Your task to perform on an android device: What's the weather today? Image 0: 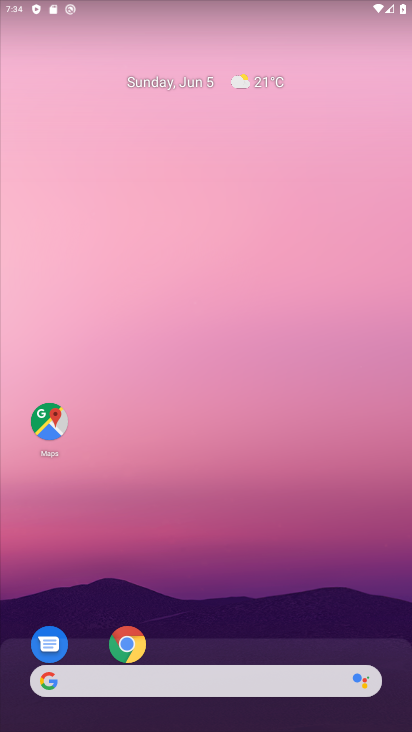
Step 0: click (128, 699)
Your task to perform on an android device: What's the weather today? Image 1: 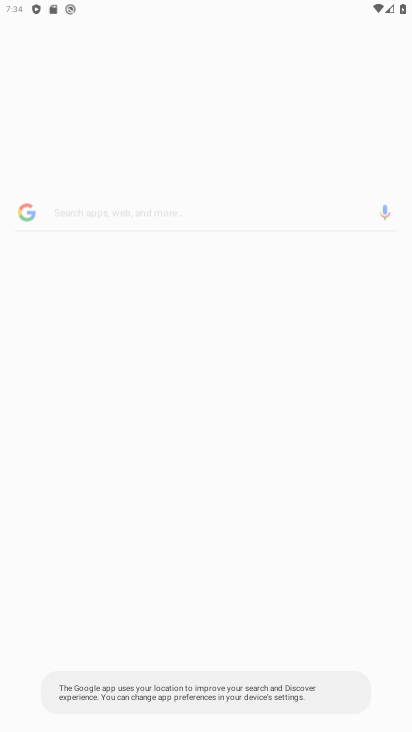
Step 1: click (128, 696)
Your task to perform on an android device: What's the weather today? Image 2: 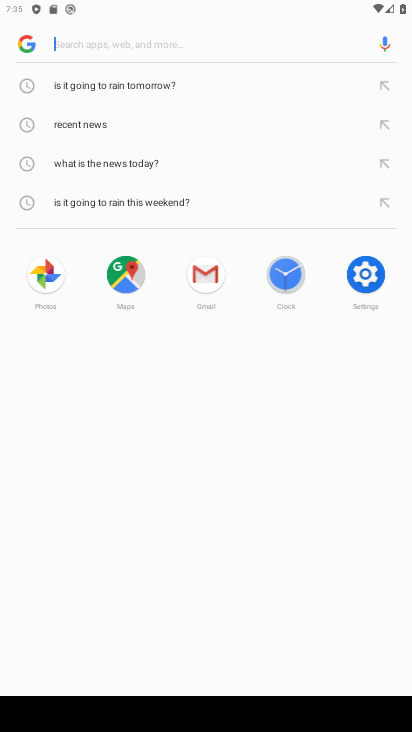
Step 2: click (192, 32)
Your task to perform on an android device: What's the weather today? Image 3: 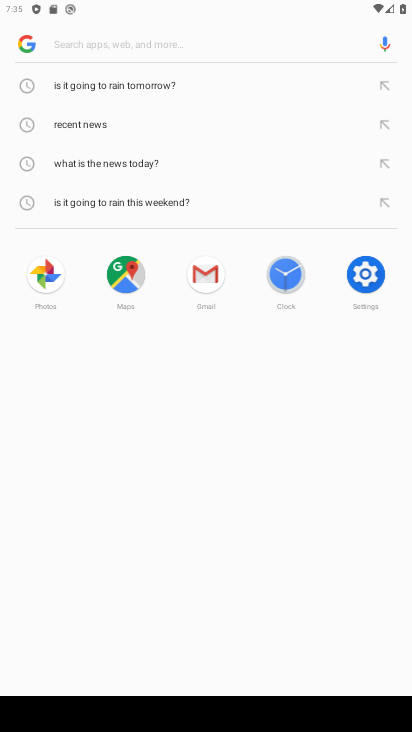
Step 3: type "weather"
Your task to perform on an android device: What's the weather today? Image 4: 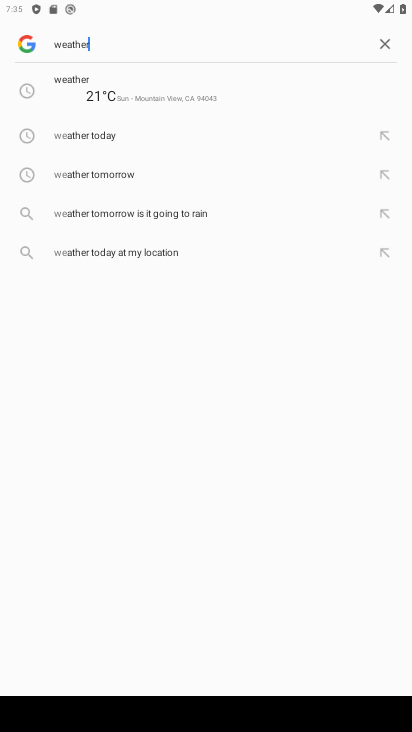
Step 4: type ""
Your task to perform on an android device: What's the weather today? Image 5: 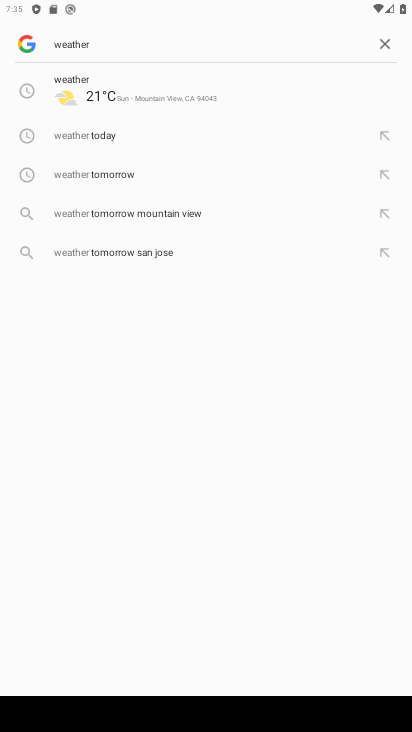
Step 5: click (76, 95)
Your task to perform on an android device: What's the weather today? Image 6: 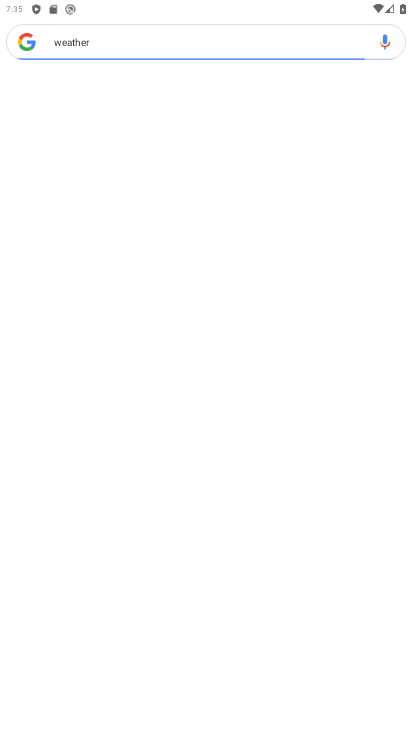
Step 6: click (167, 94)
Your task to perform on an android device: What's the weather today? Image 7: 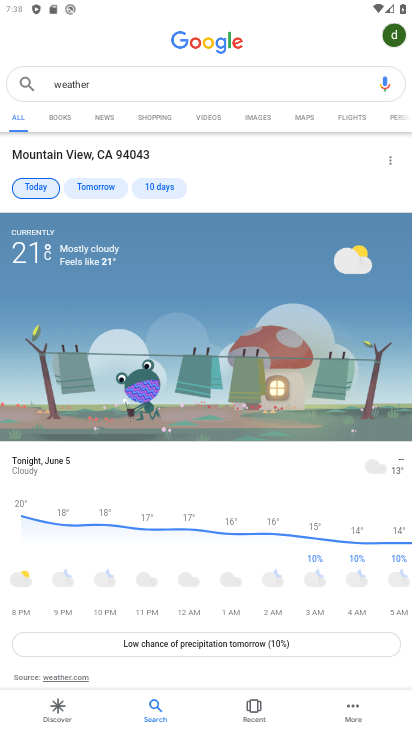
Step 7: task complete